Your task to perform on an android device: open chrome privacy settings Image 0: 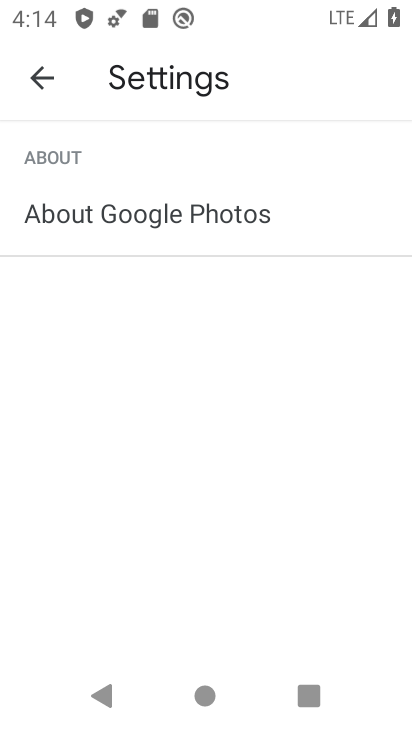
Step 0: press home button
Your task to perform on an android device: open chrome privacy settings Image 1: 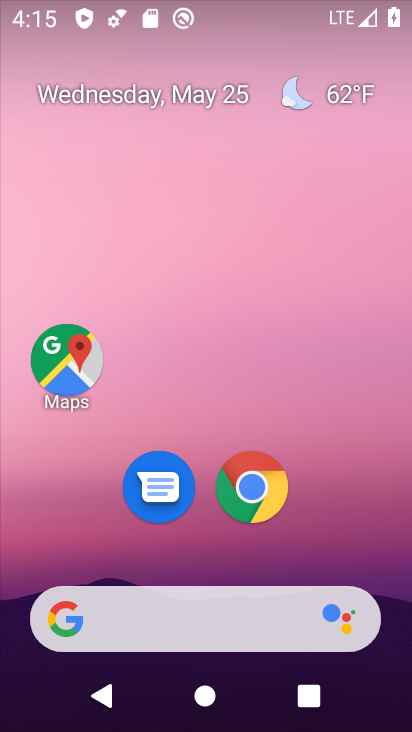
Step 1: click (259, 486)
Your task to perform on an android device: open chrome privacy settings Image 2: 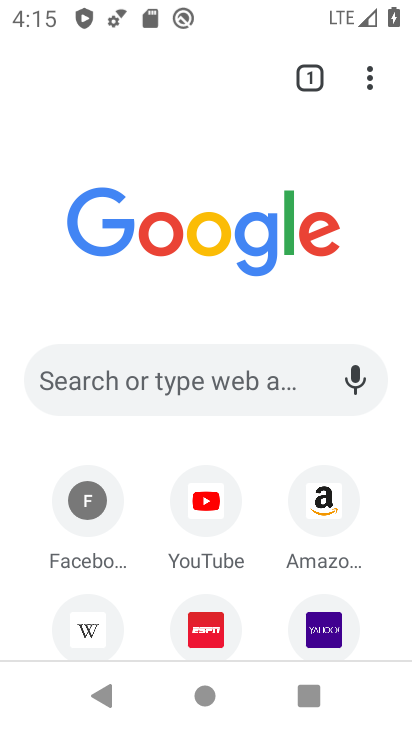
Step 2: click (371, 76)
Your task to perform on an android device: open chrome privacy settings Image 3: 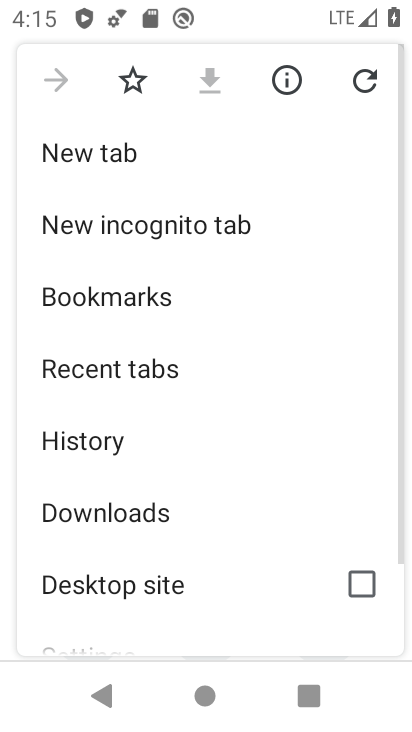
Step 3: drag from (198, 523) to (209, 161)
Your task to perform on an android device: open chrome privacy settings Image 4: 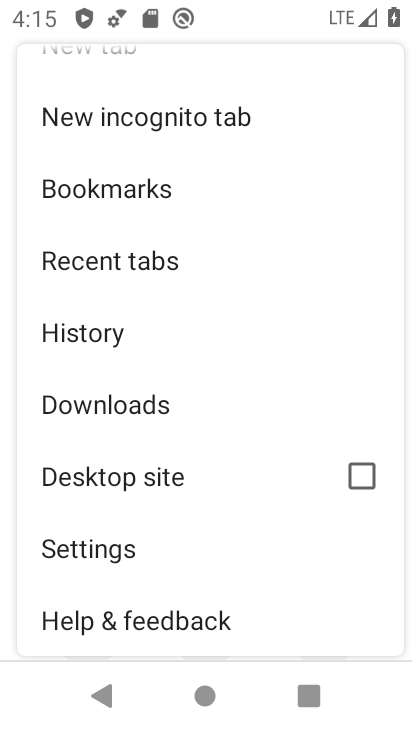
Step 4: click (141, 526)
Your task to perform on an android device: open chrome privacy settings Image 5: 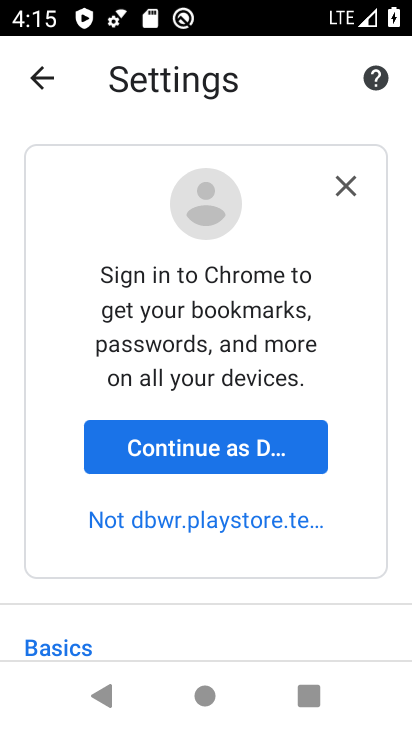
Step 5: drag from (179, 605) to (204, 33)
Your task to perform on an android device: open chrome privacy settings Image 6: 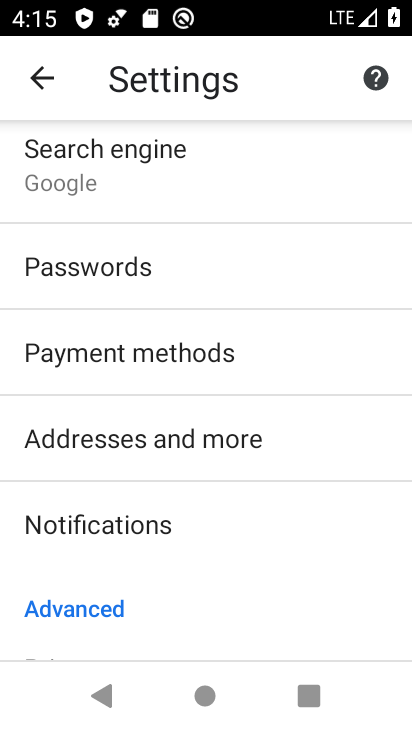
Step 6: drag from (247, 588) to (232, 148)
Your task to perform on an android device: open chrome privacy settings Image 7: 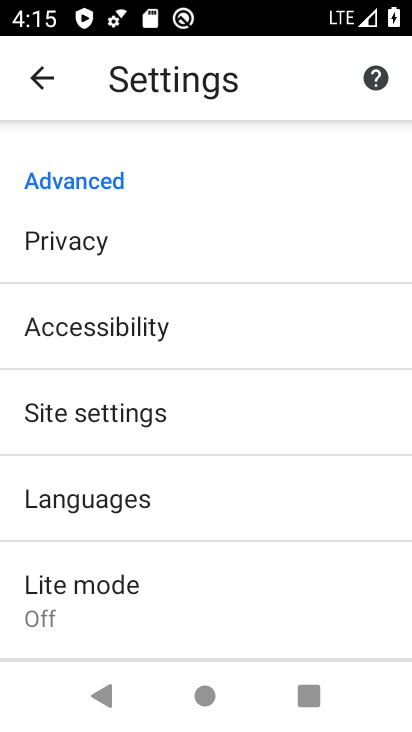
Step 7: click (135, 243)
Your task to perform on an android device: open chrome privacy settings Image 8: 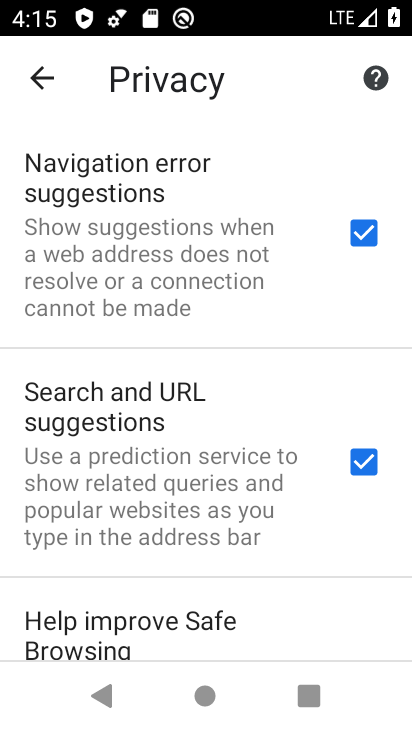
Step 8: task complete